Your task to perform on an android device: turn on the 12-hour format for clock Image 0: 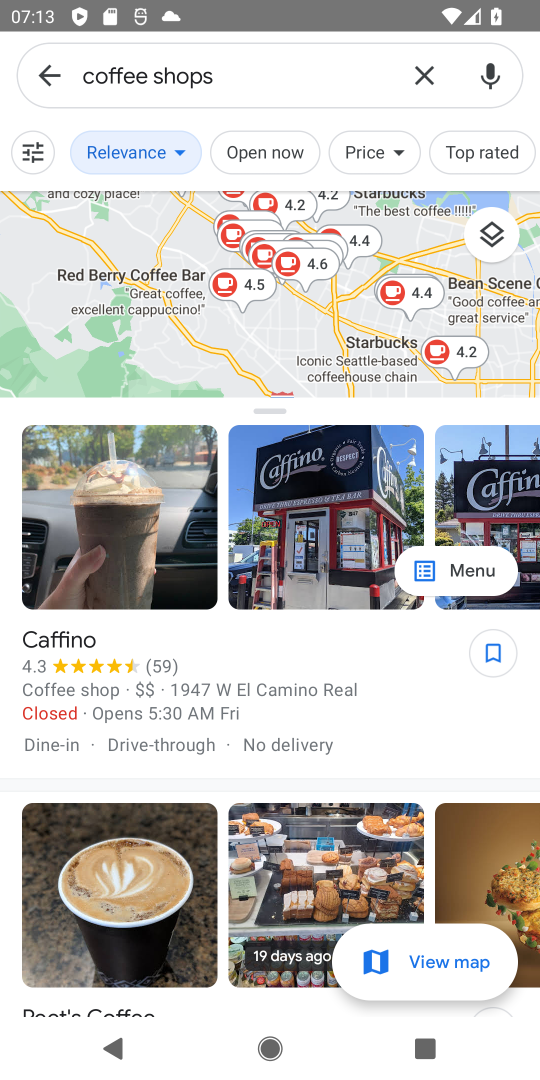
Step 0: press home button
Your task to perform on an android device: turn on the 12-hour format for clock Image 1: 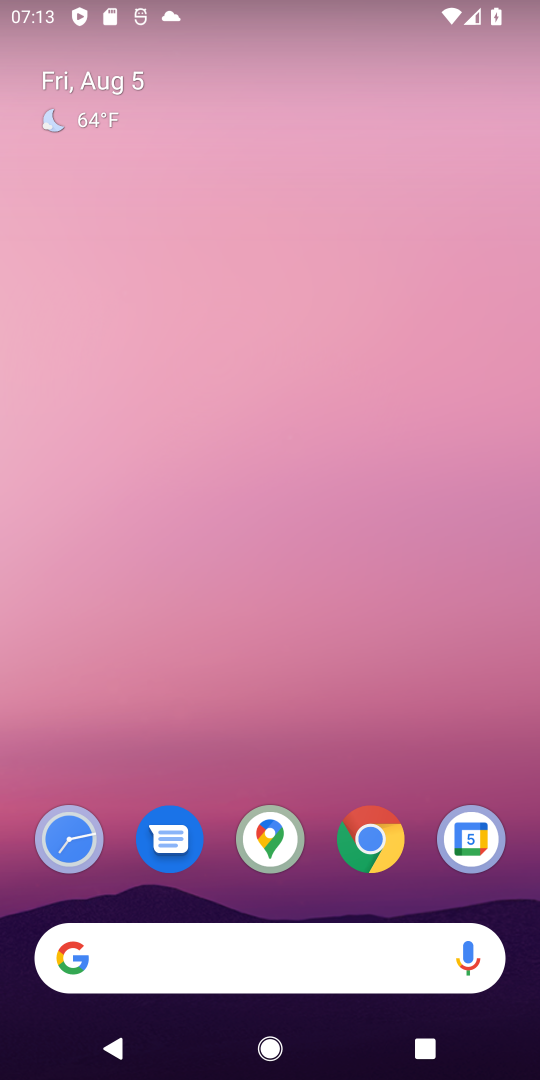
Step 1: drag from (310, 902) to (300, 178)
Your task to perform on an android device: turn on the 12-hour format for clock Image 2: 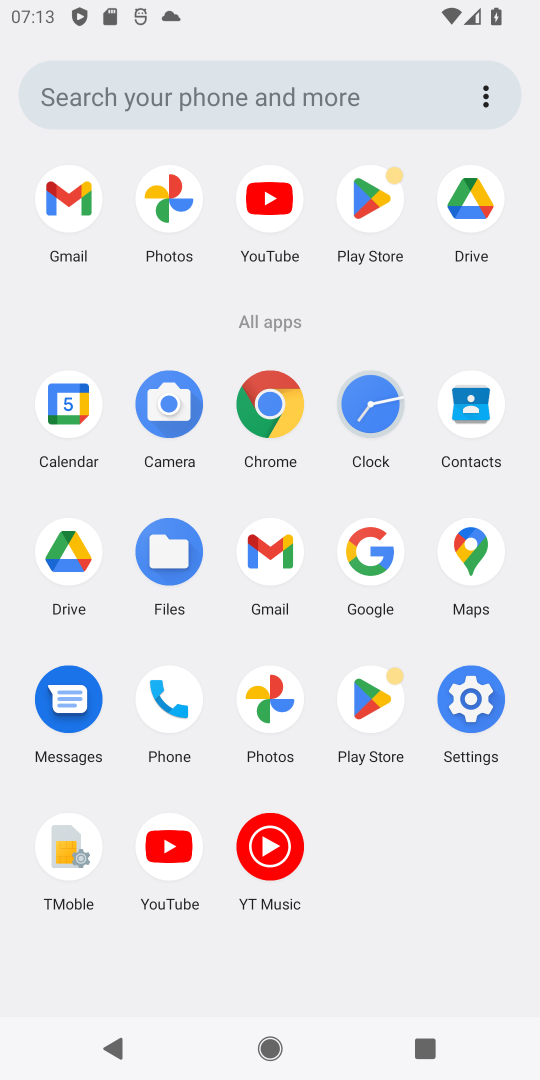
Step 2: click (372, 400)
Your task to perform on an android device: turn on the 12-hour format for clock Image 3: 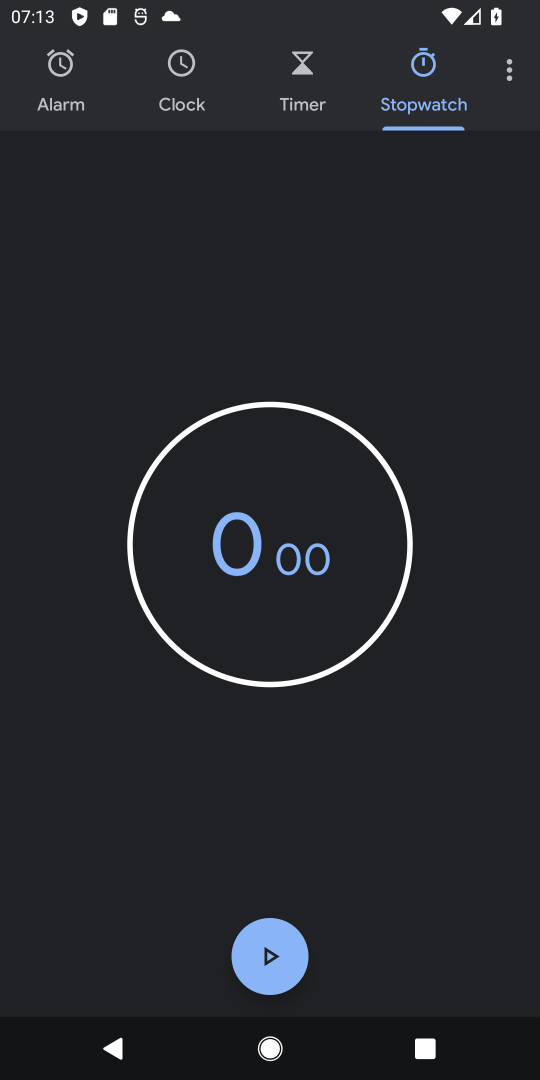
Step 3: click (515, 80)
Your task to perform on an android device: turn on the 12-hour format for clock Image 4: 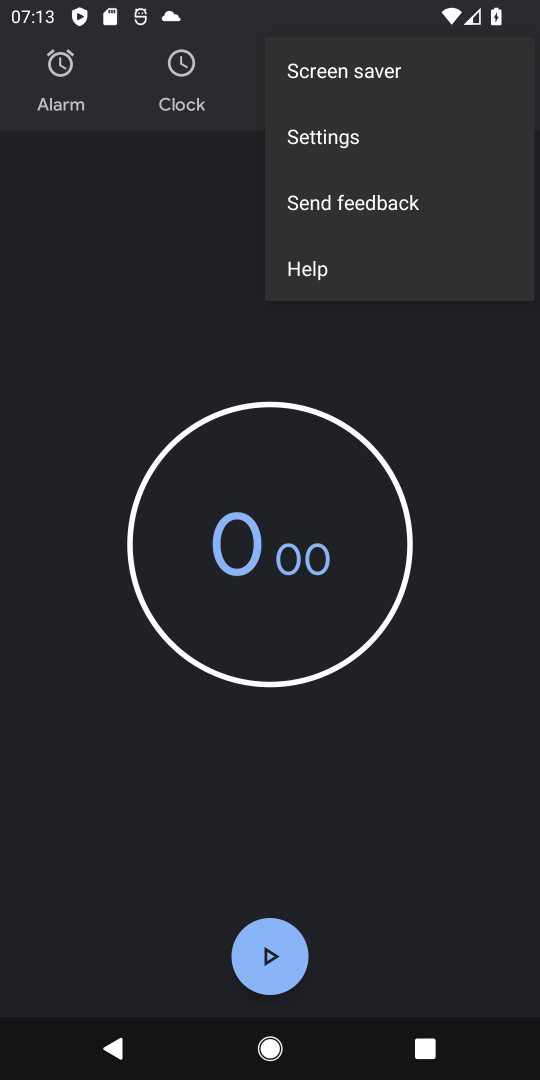
Step 4: click (331, 133)
Your task to perform on an android device: turn on the 12-hour format for clock Image 5: 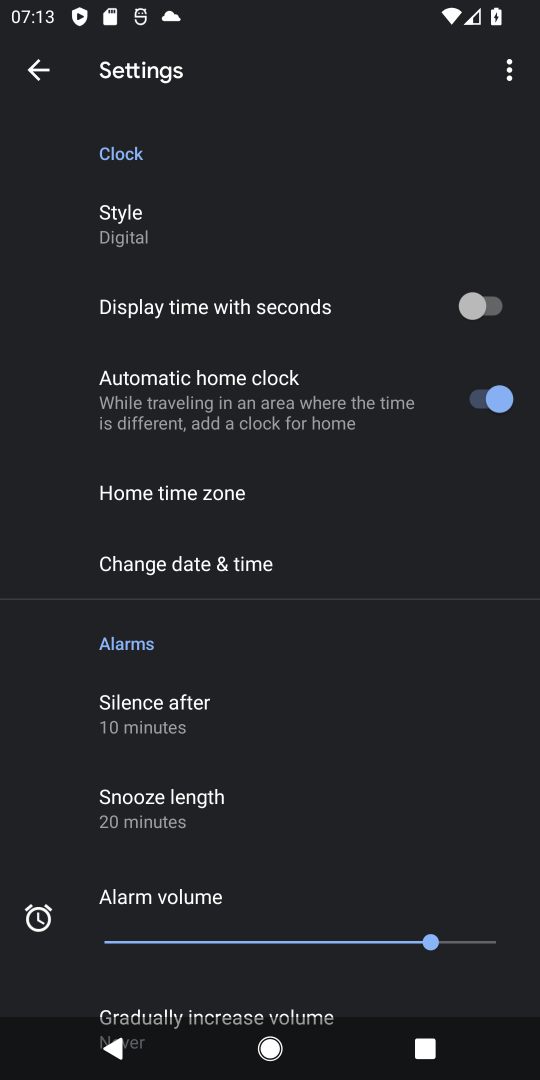
Step 5: click (235, 567)
Your task to perform on an android device: turn on the 12-hour format for clock Image 6: 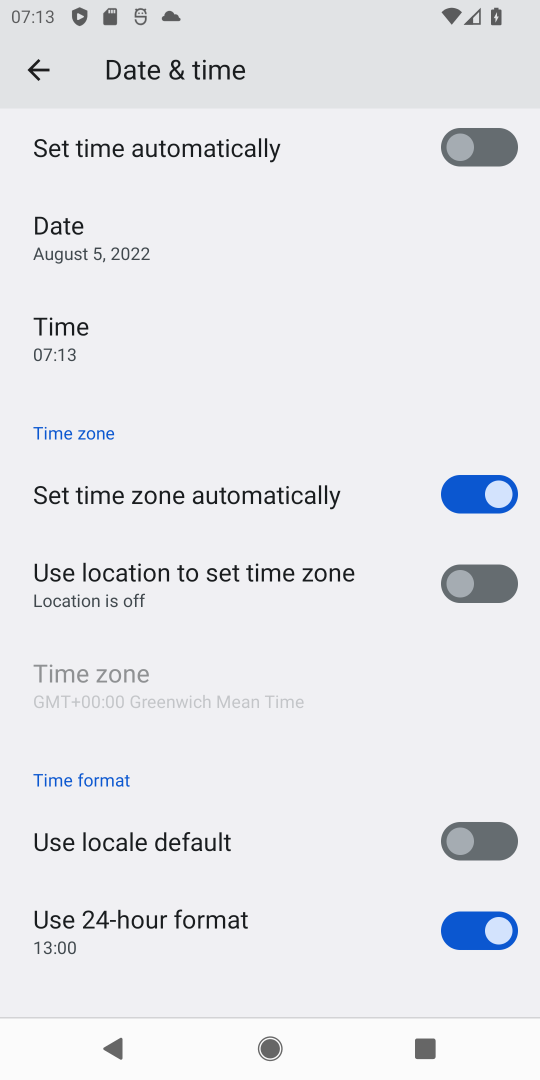
Step 6: click (455, 927)
Your task to perform on an android device: turn on the 12-hour format for clock Image 7: 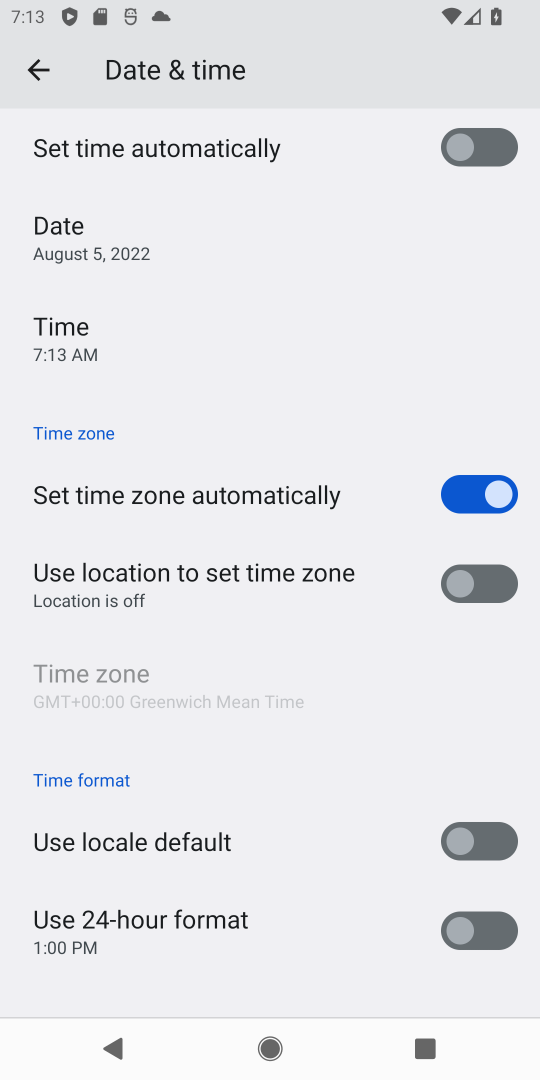
Step 7: click (493, 846)
Your task to perform on an android device: turn on the 12-hour format for clock Image 8: 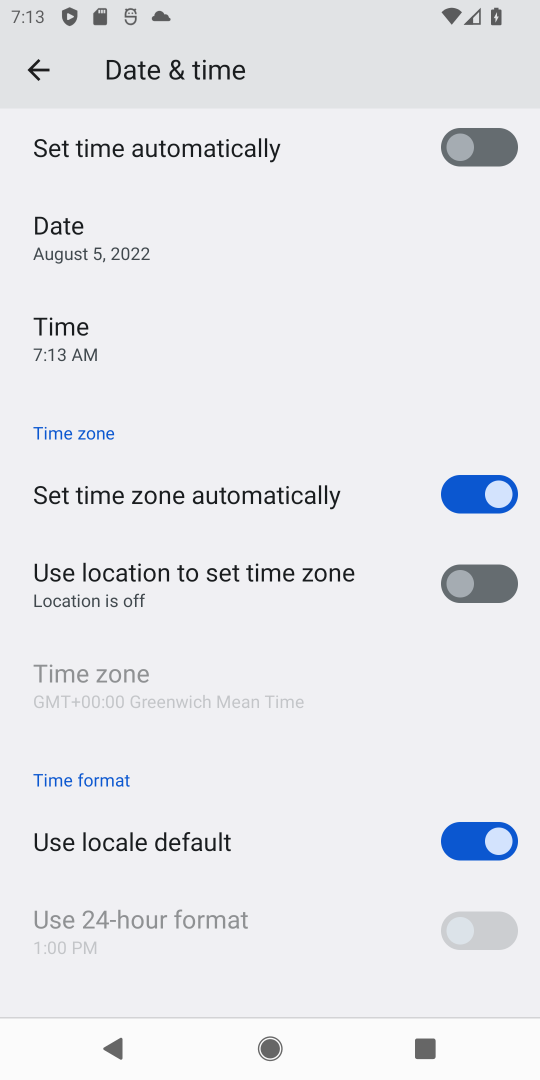
Step 8: task complete